Your task to perform on an android device: turn off notifications in google photos Image 0: 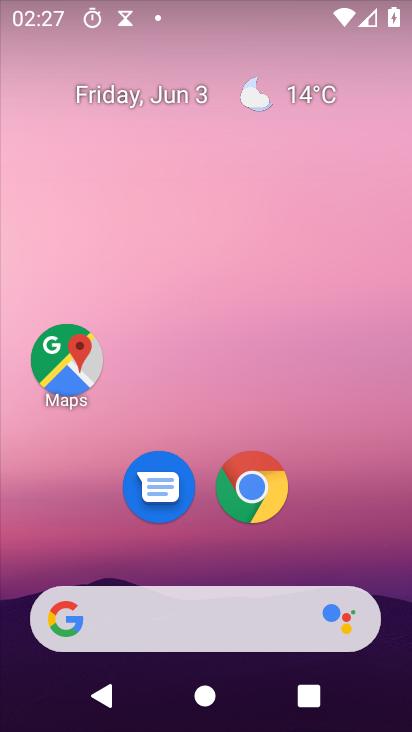
Step 0: drag from (271, 339) to (188, 29)
Your task to perform on an android device: turn off notifications in google photos Image 1: 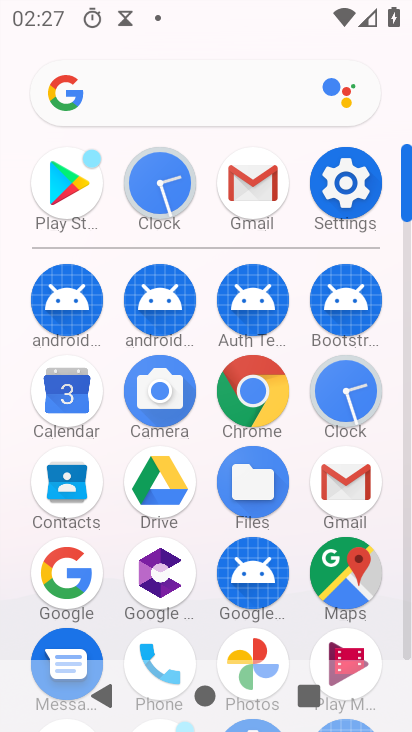
Step 1: click (267, 639)
Your task to perform on an android device: turn off notifications in google photos Image 2: 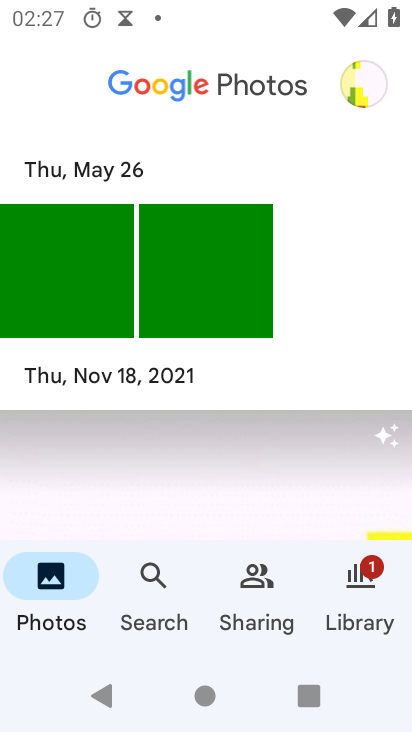
Step 2: click (363, 73)
Your task to perform on an android device: turn off notifications in google photos Image 3: 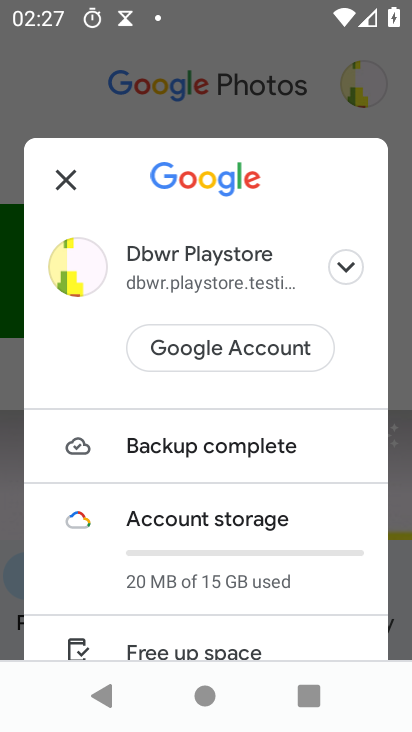
Step 3: drag from (221, 599) to (194, 62)
Your task to perform on an android device: turn off notifications in google photos Image 4: 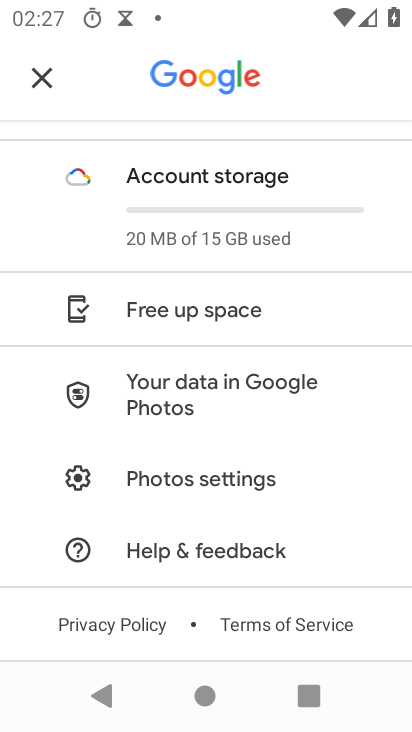
Step 4: click (248, 491)
Your task to perform on an android device: turn off notifications in google photos Image 5: 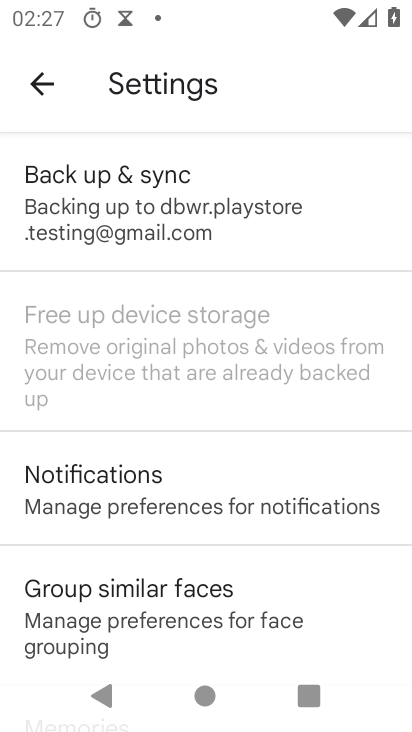
Step 5: click (210, 511)
Your task to perform on an android device: turn off notifications in google photos Image 6: 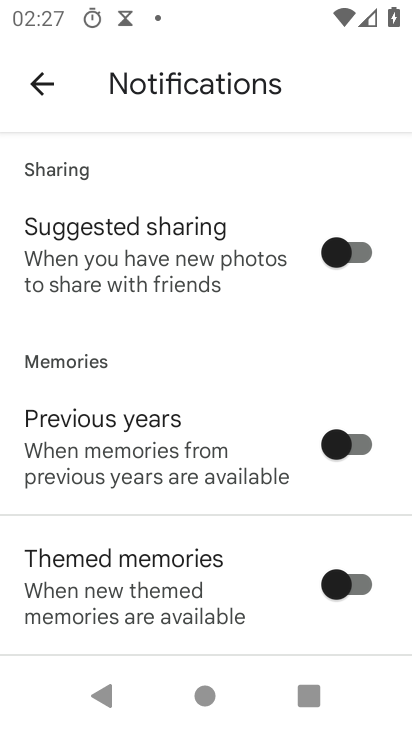
Step 6: task complete